Your task to perform on an android device: allow cookies in the chrome app Image 0: 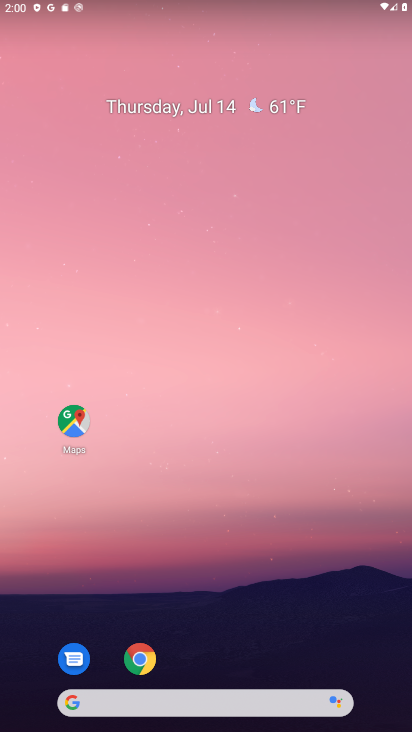
Step 0: drag from (193, 685) to (143, 93)
Your task to perform on an android device: allow cookies in the chrome app Image 1: 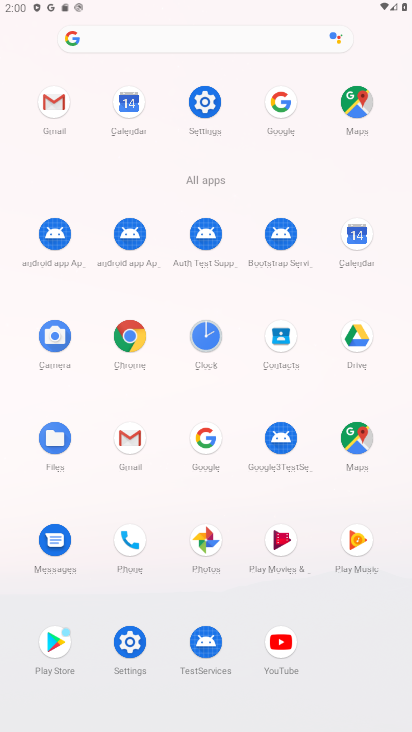
Step 1: click (110, 351)
Your task to perform on an android device: allow cookies in the chrome app Image 2: 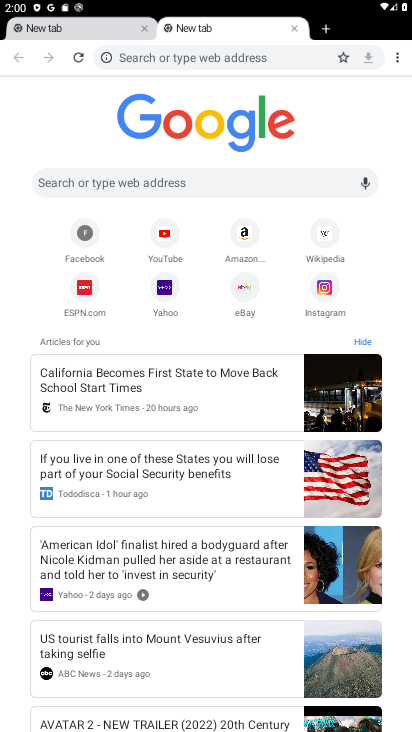
Step 2: drag from (399, 56) to (288, 300)
Your task to perform on an android device: allow cookies in the chrome app Image 3: 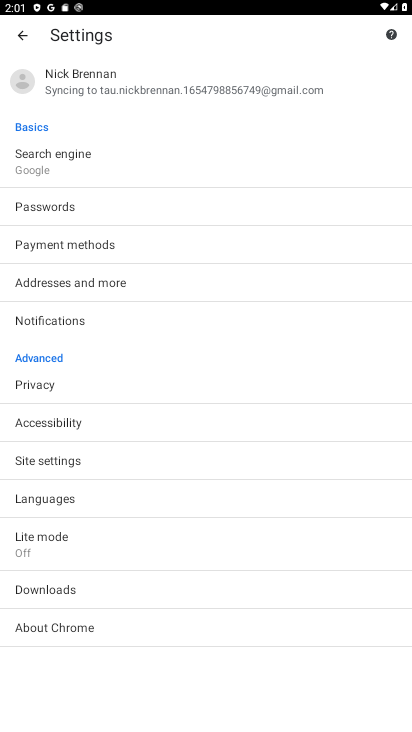
Step 3: click (71, 459)
Your task to perform on an android device: allow cookies in the chrome app Image 4: 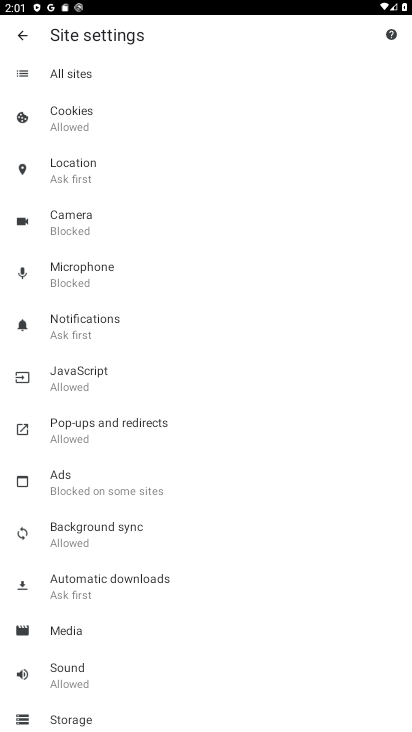
Step 4: click (67, 120)
Your task to perform on an android device: allow cookies in the chrome app Image 5: 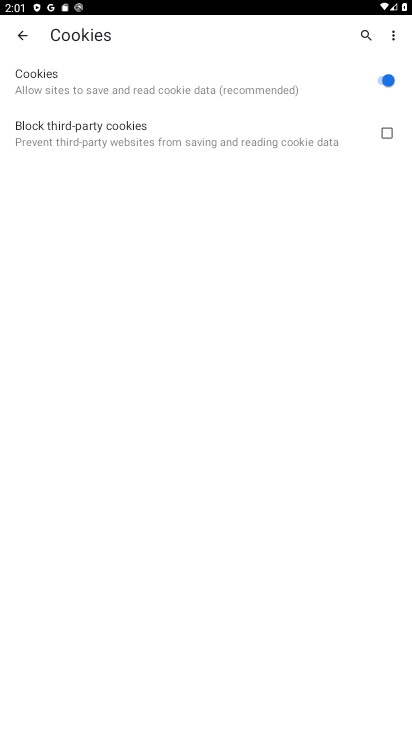
Step 5: task complete